Your task to perform on an android device: Open Google Maps Image 0: 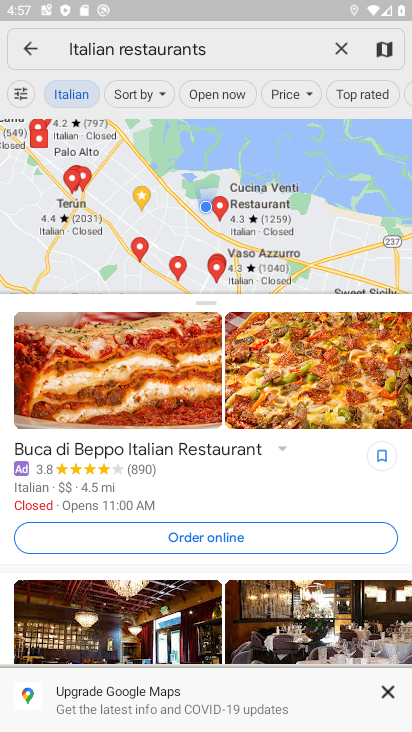
Step 0: task complete